Your task to perform on an android device: Show me the alarms in the clock app Image 0: 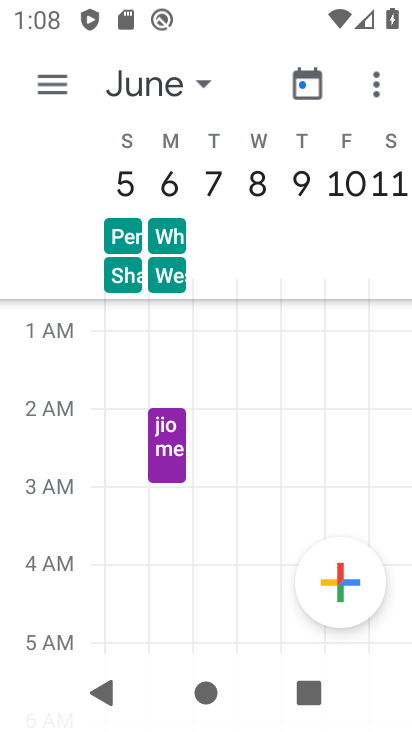
Step 0: press home button
Your task to perform on an android device: Show me the alarms in the clock app Image 1: 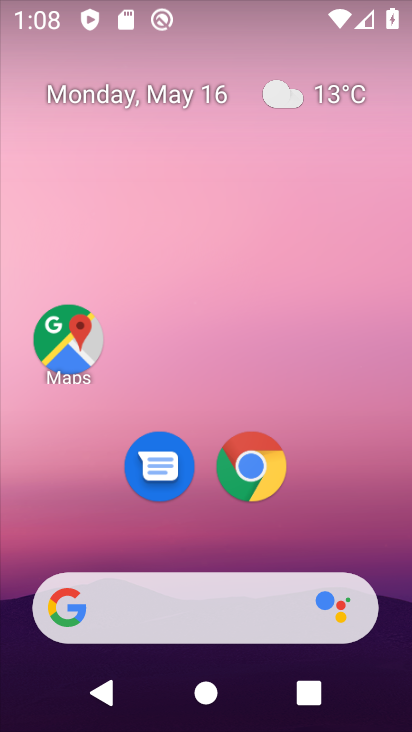
Step 1: drag from (334, 505) to (308, 107)
Your task to perform on an android device: Show me the alarms in the clock app Image 2: 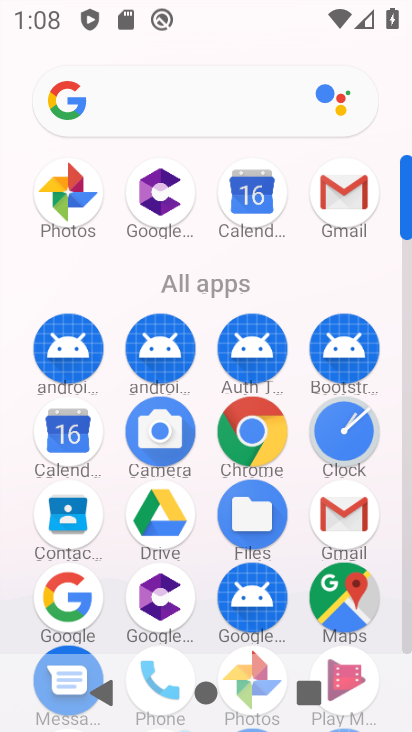
Step 2: click (338, 430)
Your task to perform on an android device: Show me the alarms in the clock app Image 3: 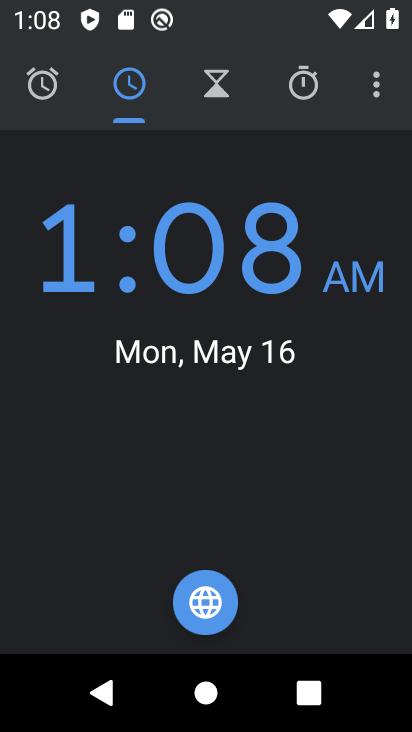
Step 3: click (42, 86)
Your task to perform on an android device: Show me the alarms in the clock app Image 4: 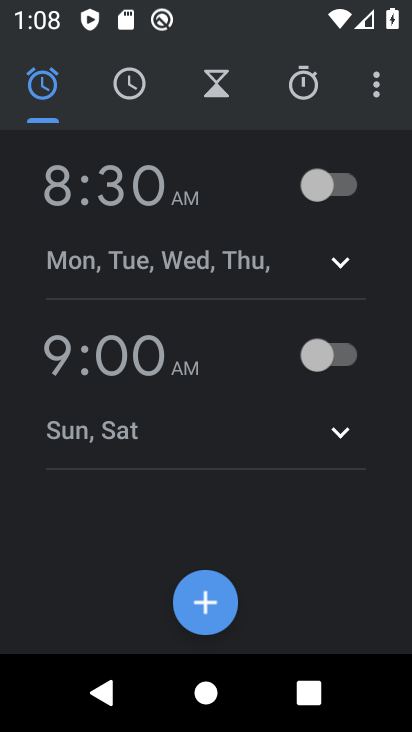
Step 4: task complete